Your task to perform on an android device: turn on bluetooth scan Image 0: 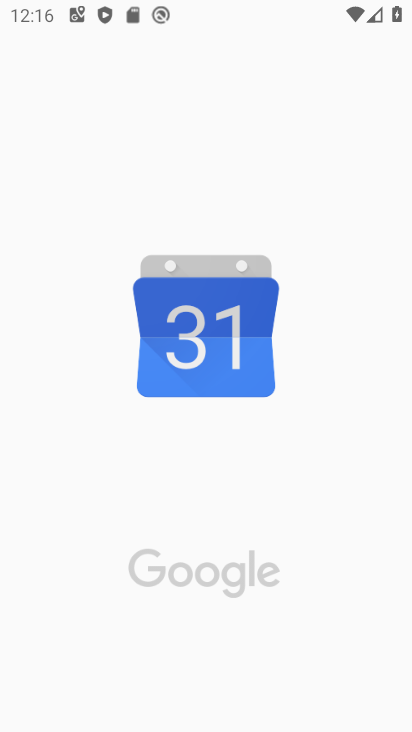
Step 0: press home button
Your task to perform on an android device: turn on bluetooth scan Image 1: 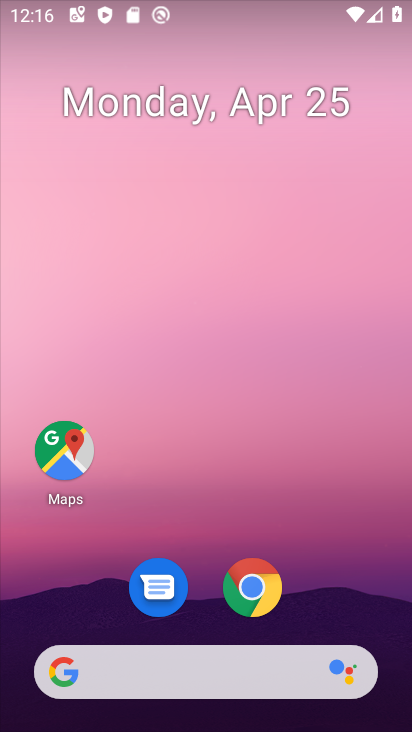
Step 1: drag from (361, 581) to (296, 138)
Your task to perform on an android device: turn on bluetooth scan Image 2: 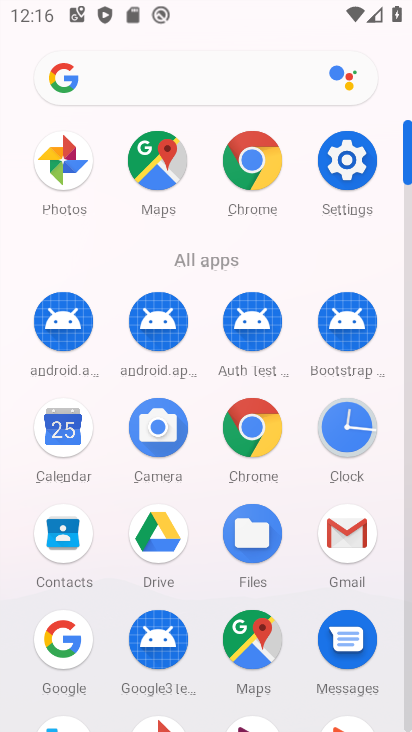
Step 2: click (345, 148)
Your task to perform on an android device: turn on bluetooth scan Image 3: 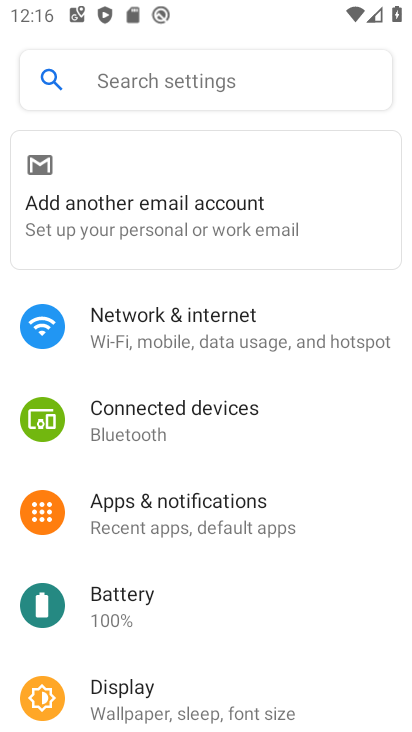
Step 3: drag from (270, 637) to (256, 305)
Your task to perform on an android device: turn on bluetooth scan Image 4: 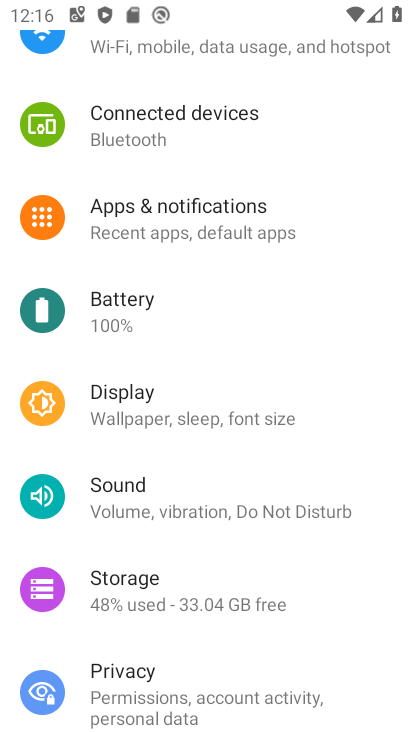
Step 4: drag from (296, 589) to (299, 235)
Your task to perform on an android device: turn on bluetooth scan Image 5: 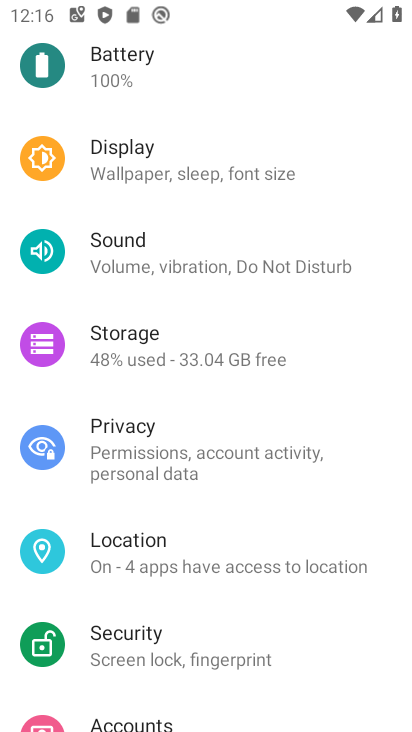
Step 5: click (267, 538)
Your task to perform on an android device: turn on bluetooth scan Image 6: 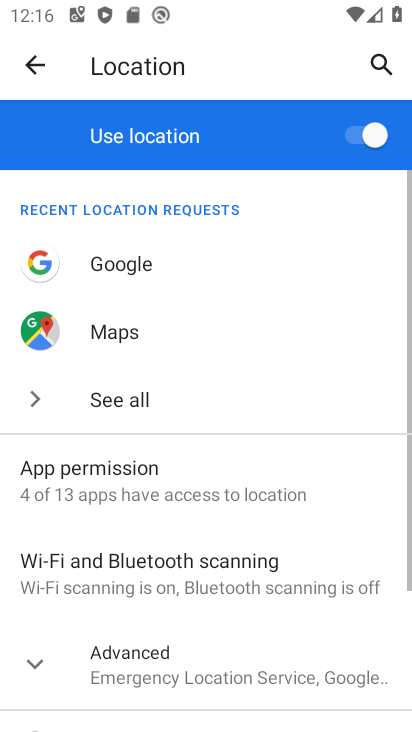
Step 6: click (228, 583)
Your task to perform on an android device: turn on bluetooth scan Image 7: 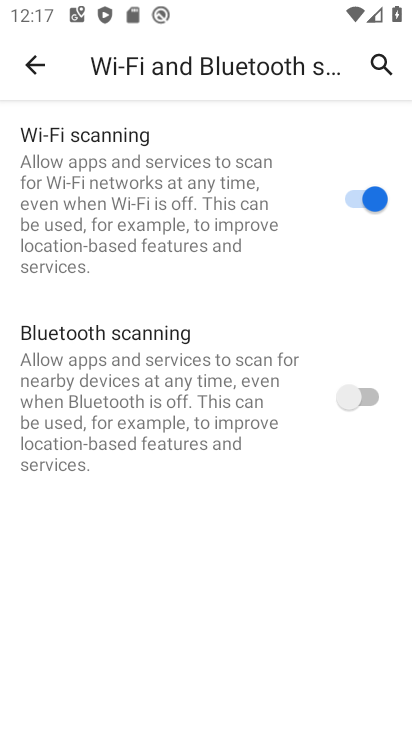
Step 7: click (373, 415)
Your task to perform on an android device: turn on bluetooth scan Image 8: 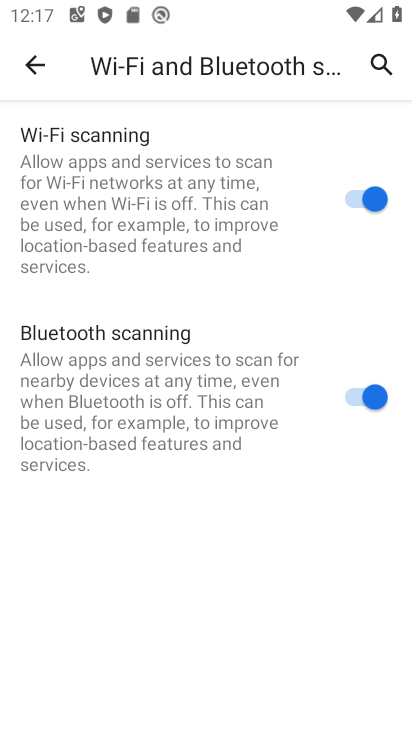
Step 8: task complete